Your task to perform on an android device: check storage Image 0: 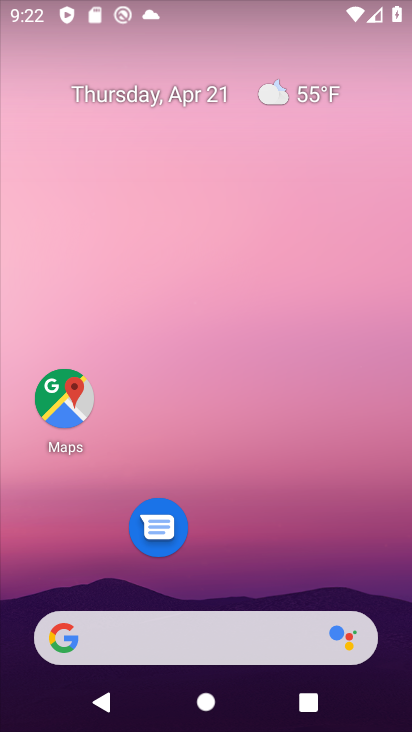
Step 0: drag from (212, 599) to (218, 49)
Your task to perform on an android device: check storage Image 1: 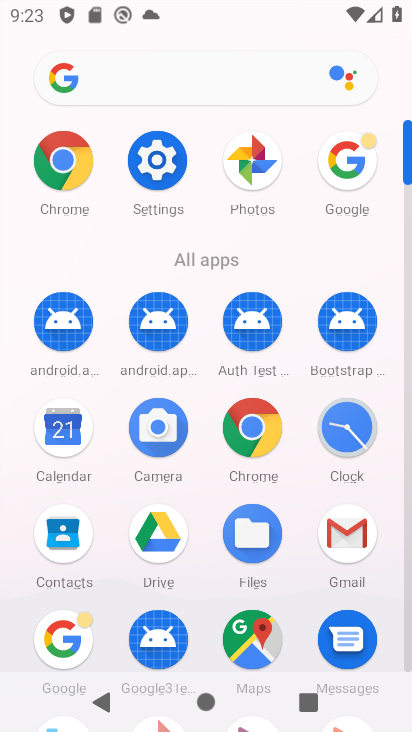
Step 1: click (158, 141)
Your task to perform on an android device: check storage Image 2: 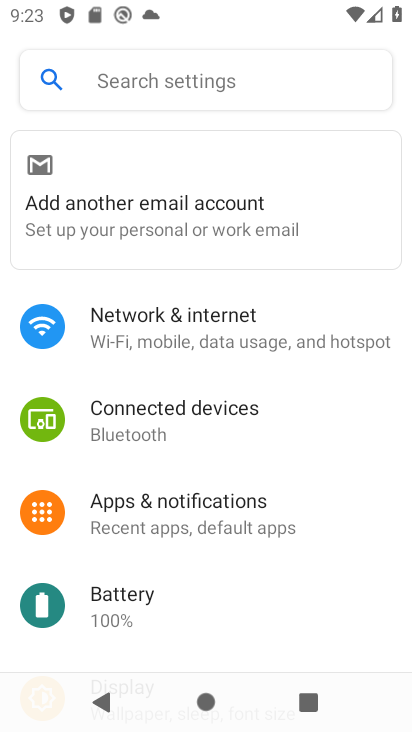
Step 2: drag from (209, 603) to (236, 133)
Your task to perform on an android device: check storage Image 3: 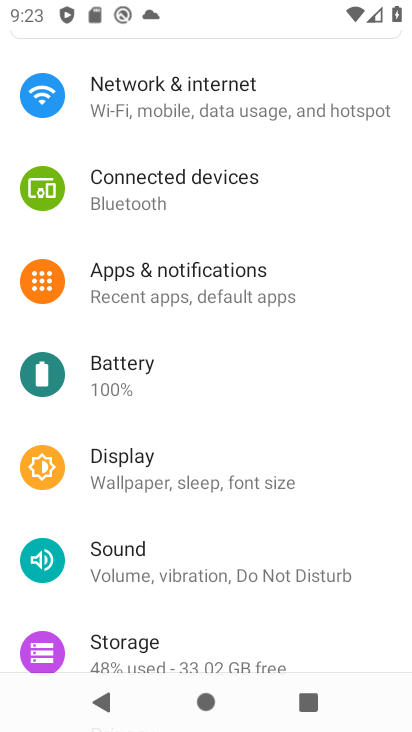
Step 3: drag from (175, 576) to (185, 309)
Your task to perform on an android device: check storage Image 4: 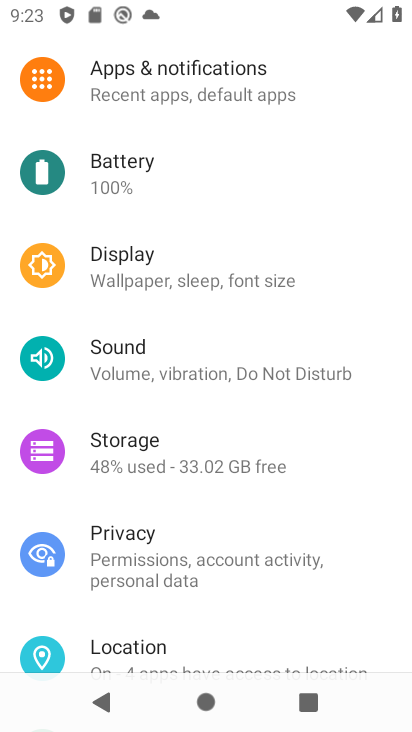
Step 4: click (146, 465)
Your task to perform on an android device: check storage Image 5: 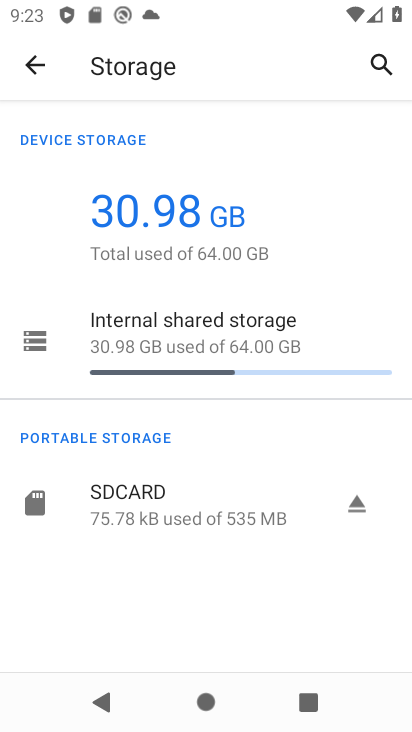
Step 5: click (182, 360)
Your task to perform on an android device: check storage Image 6: 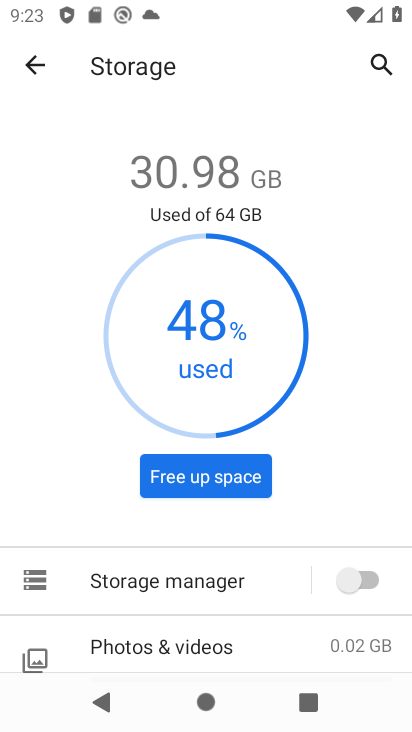
Step 6: task complete